Your task to perform on an android device: Clear all items from cart on target. Add "apple airpods" to the cart on target Image 0: 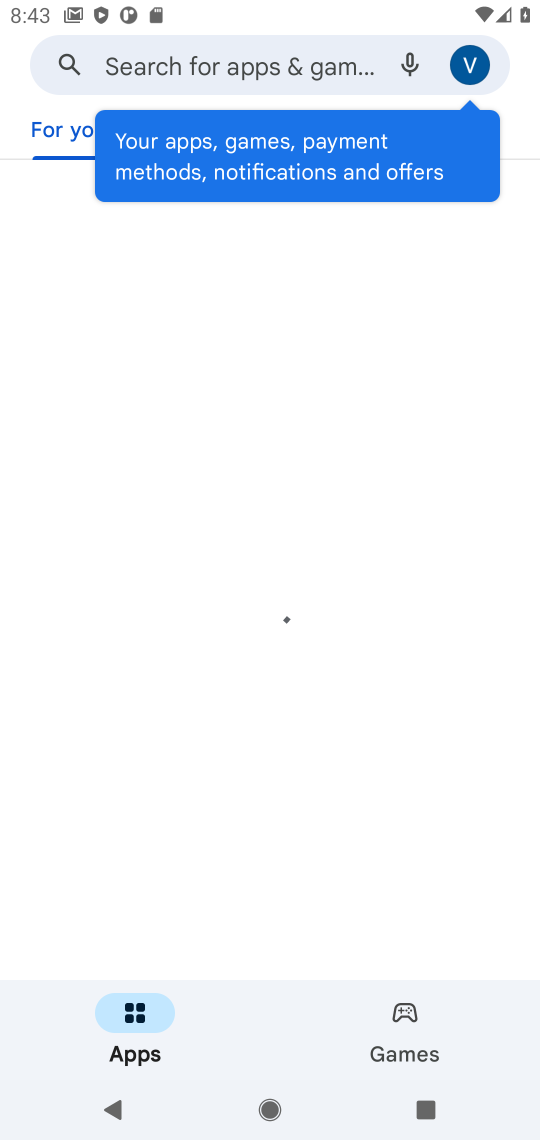
Step 0: press home button
Your task to perform on an android device: Clear all items from cart on target. Add "apple airpods" to the cart on target Image 1: 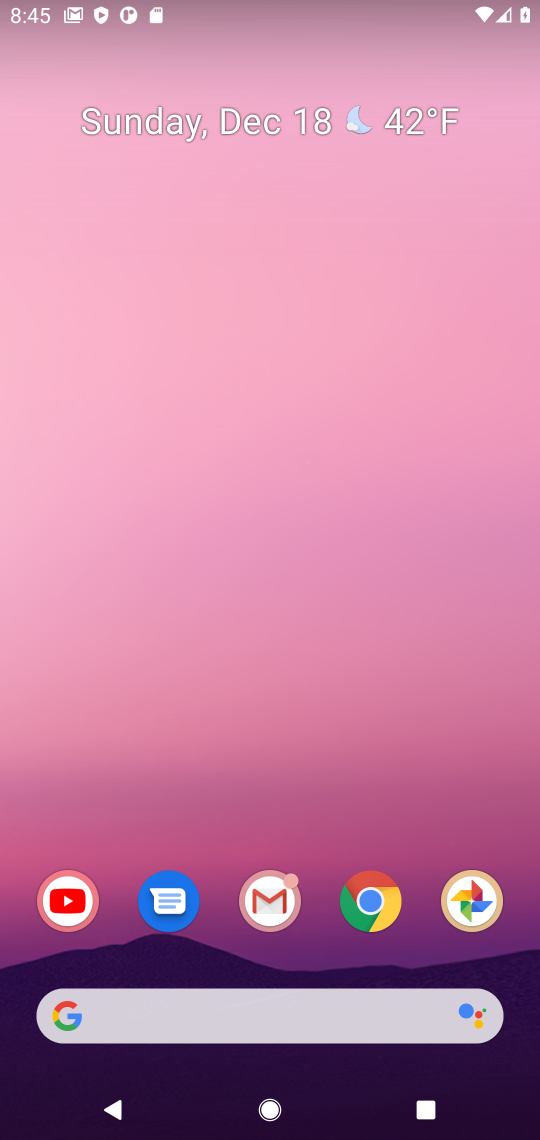
Step 1: click (375, 900)
Your task to perform on an android device: Clear all items from cart on target. Add "apple airpods" to the cart on target Image 2: 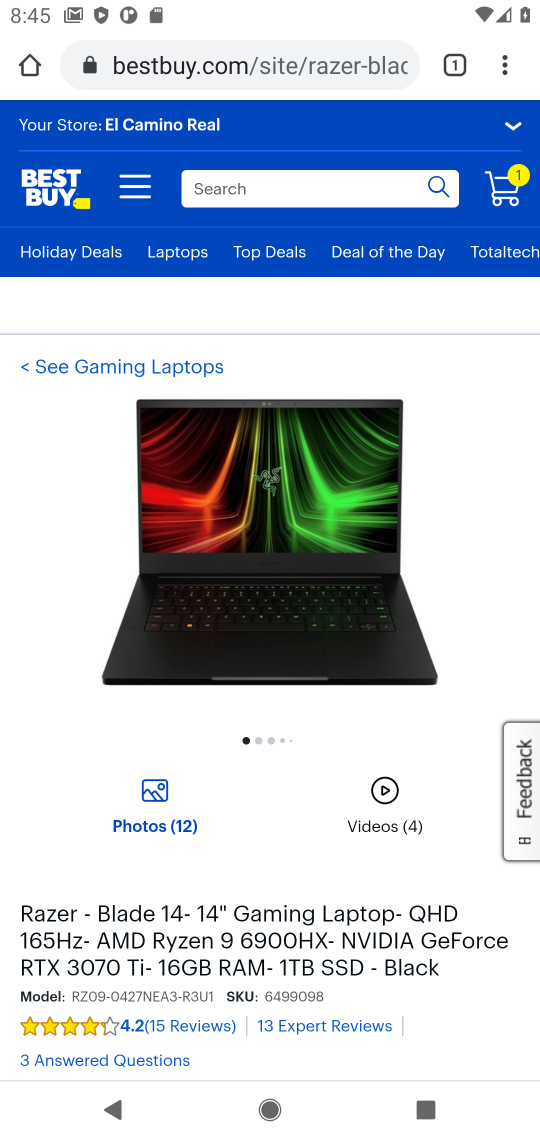
Step 2: click (279, 193)
Your task to perform on an android device: Clear all items from cart on target. Add "apple airpods" to the cart on target Image 3: 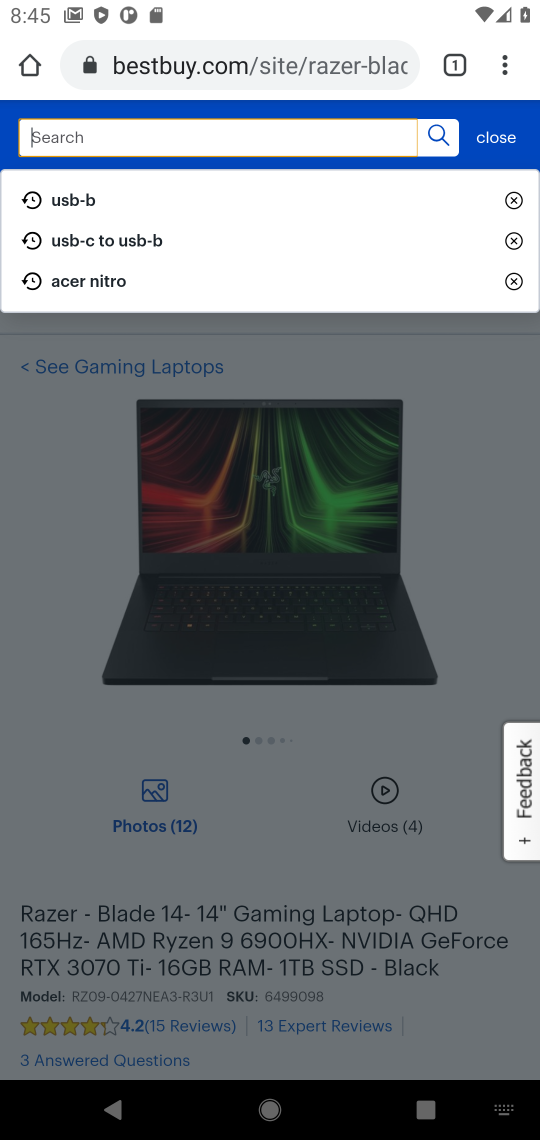
Step 3: click (281, 78)
Your task to perform on an android device: Clear all items from cart on target. Add "apple airpods" to the cart on target Image 4: 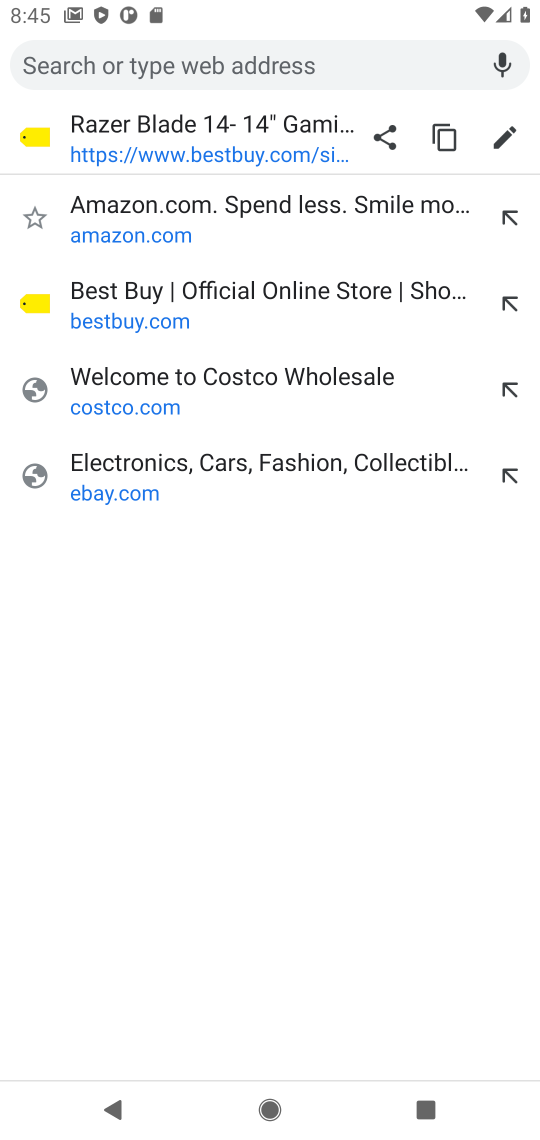
Step 4: type "apple airpod"
Your task to perform on an android device: Clear all items from cart on target. Add "apple airpods" to the cart on target Image 5: 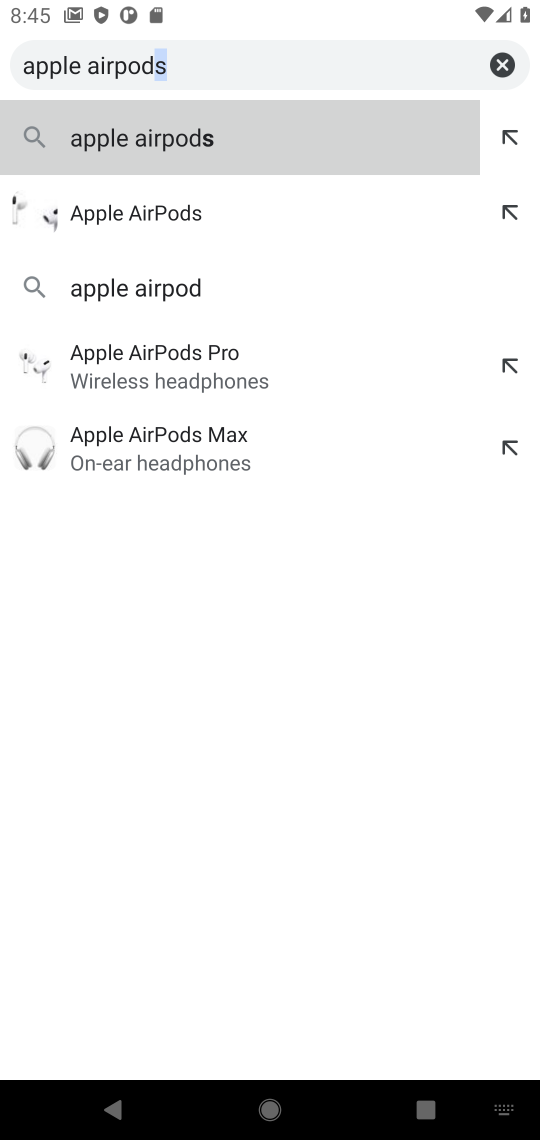
Step 5: click (196, 178)
Your task to perform on an android device: Clear all items from cart on target. Add "apple airpods" to the cart on target Image 6: 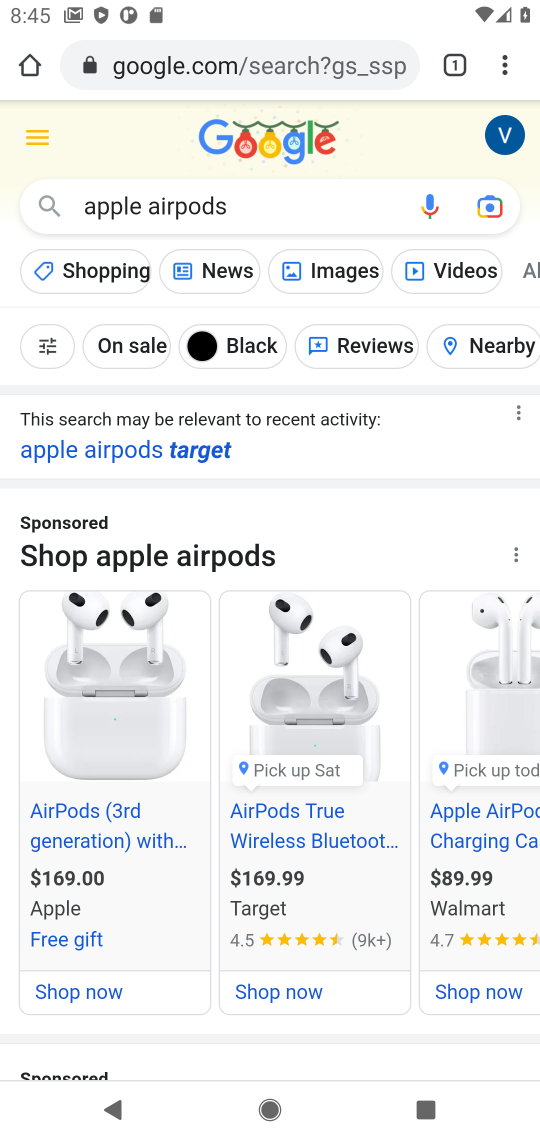
Step 6: click (136, 940)
Your task to perform on an android device: Clear all items from cart on target. Add "apple airpods" to the cart on target Image 7: 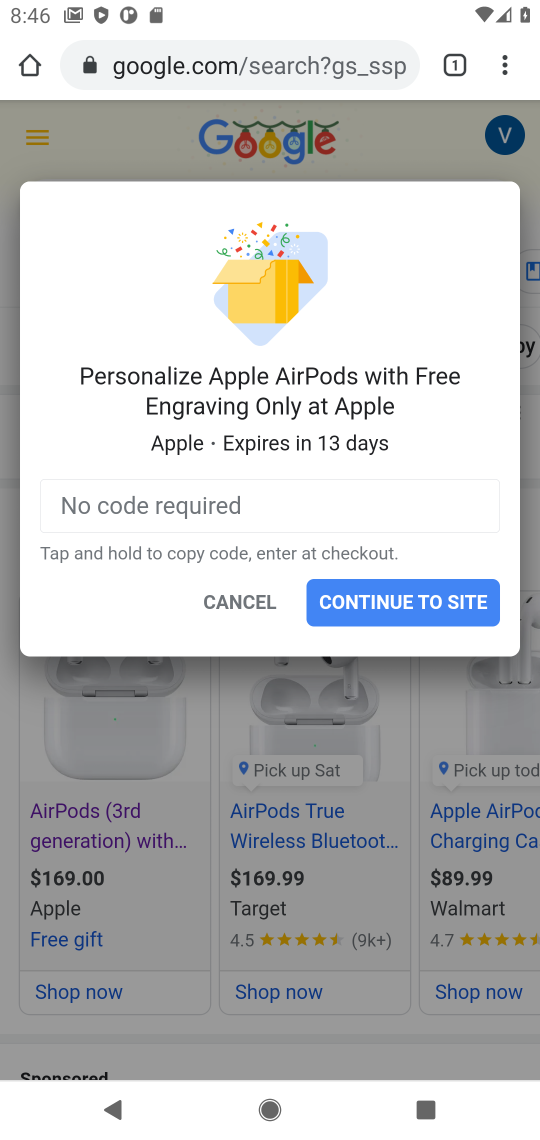
Step 7: click (243, 607)
Your task to perform on an android device: Clear all items from cart on target. Add "apple airpods" to the cart on target Image 8: 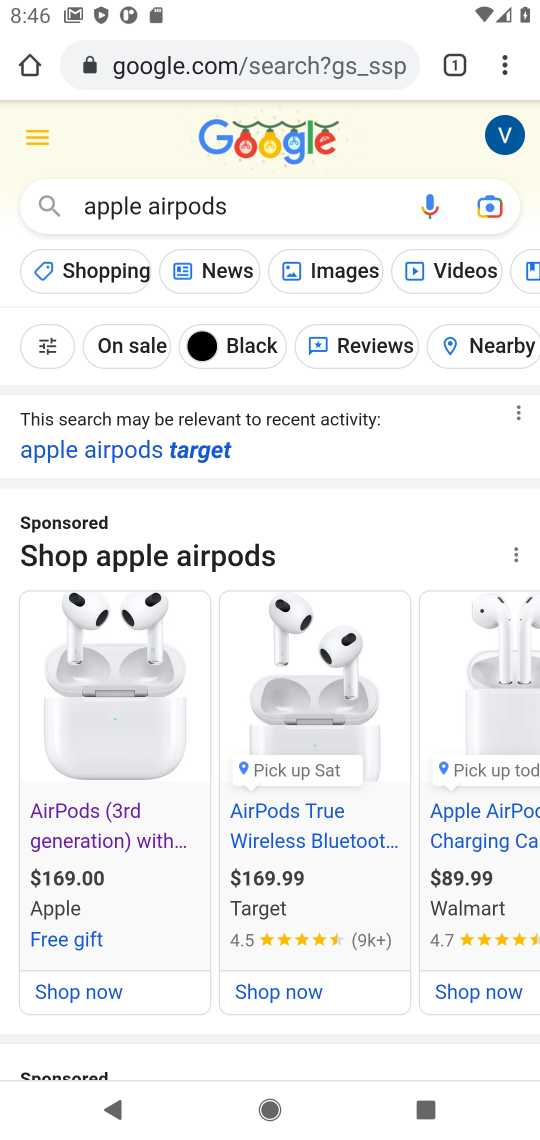
Step 8: click (118, 823)
Your task to perform on an android device: Clear all items from cart on target. Add "apple airpods" to the cart on target Image 9: 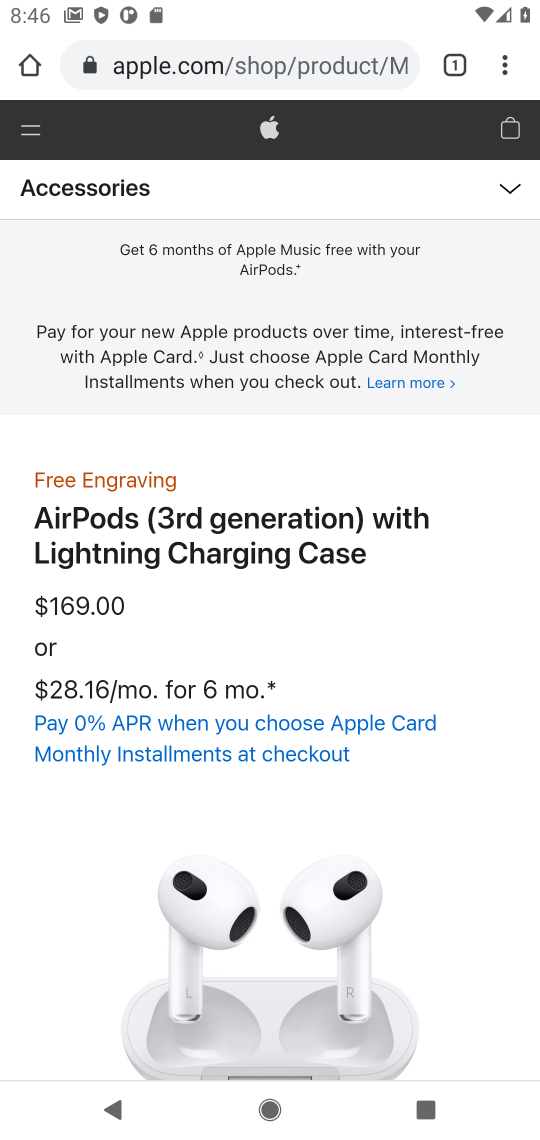
Step 9: drag from (92, 871) to (108, 262)
Your task to perform on an android device: Clear all items from cart on target. Add "apple airpods" to the cart on target Image 10: 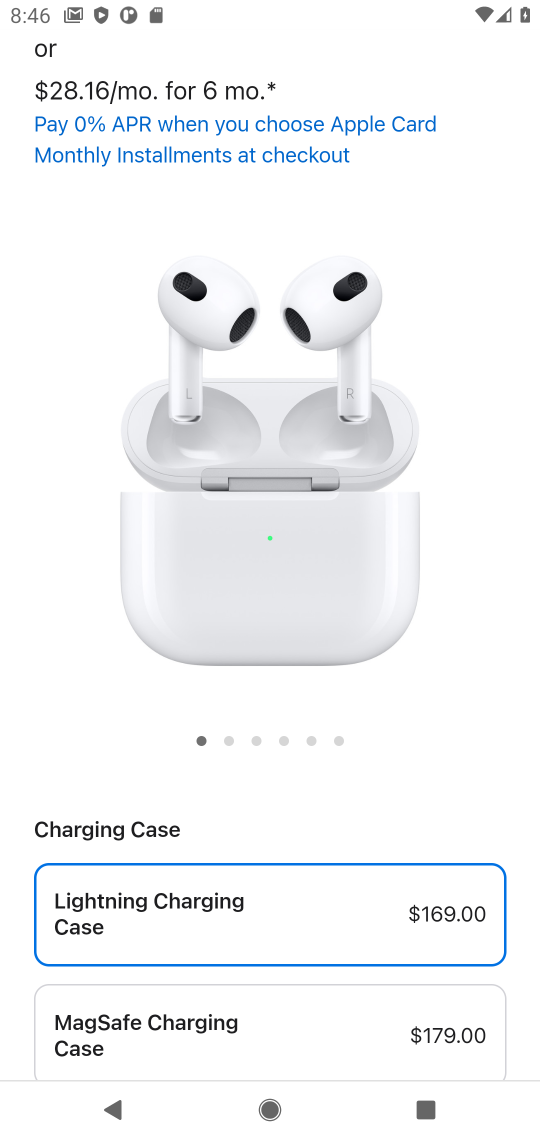
Step 10: drag from (280, 973) to (322, 196)
Your task to perform on an android device: Clear all items from cart on target. Add "apple airpods" to the cart on target Image 11: 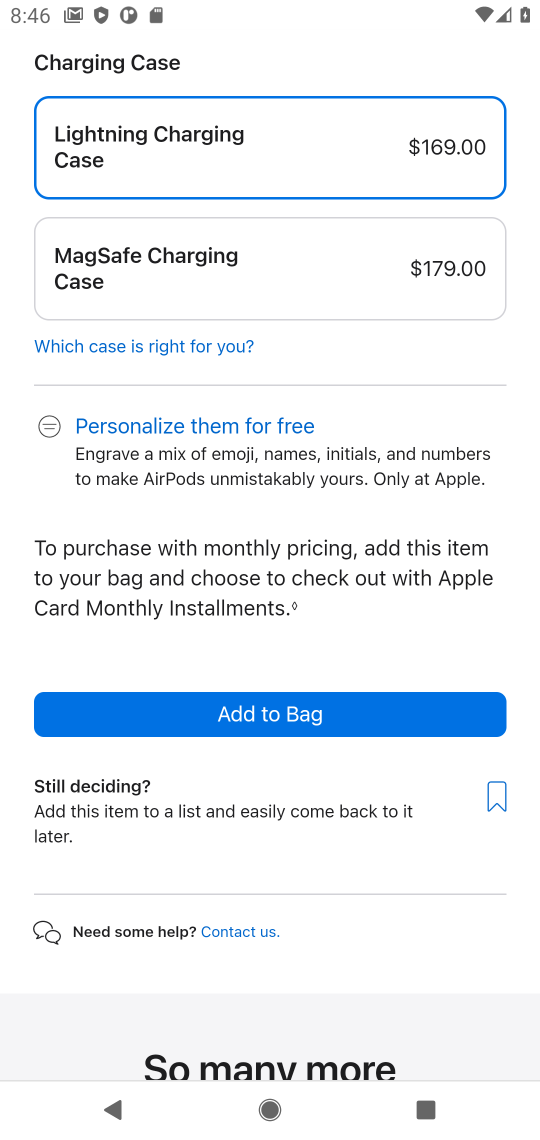
Step 11: click (368, 731)
Your task to perform on an android device: Clear all items from cart on target. Add "apple airpods" to the cart on target Image 12: 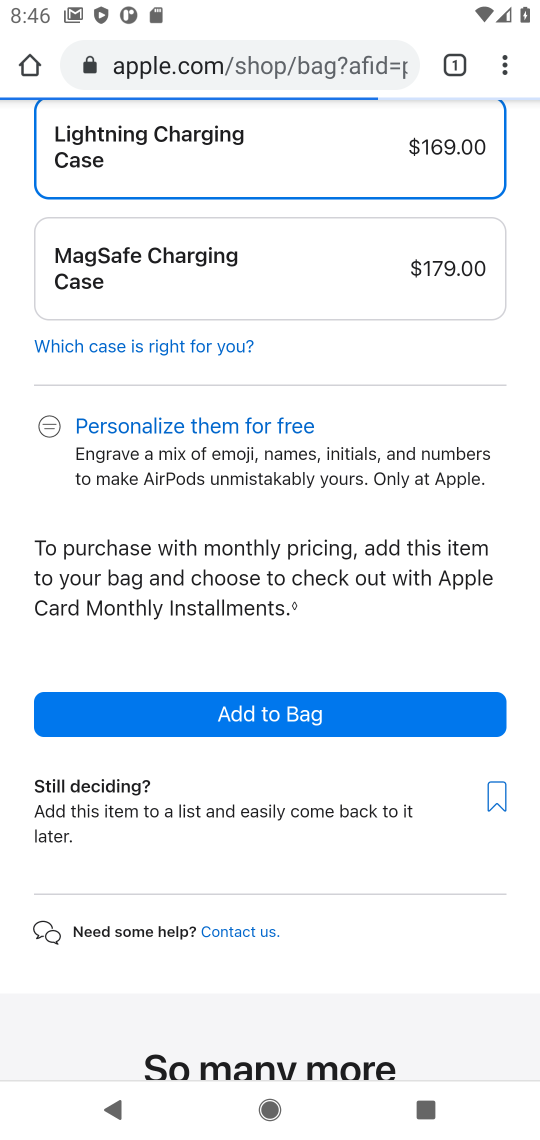
Step 12: task complete